Your task to perform on an android device: Open sound settings Image 0: 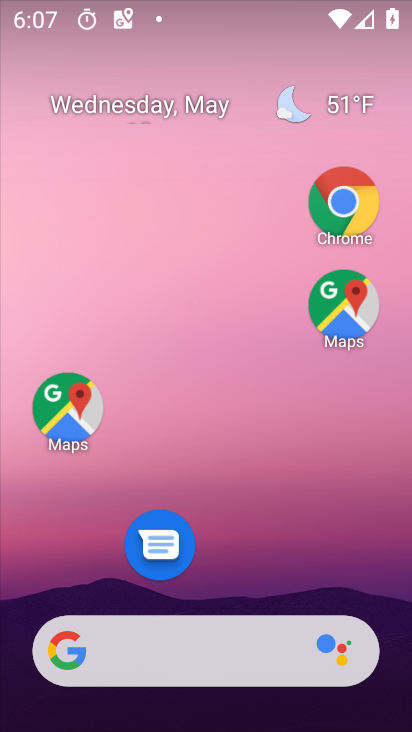
Step 0: drag from (180, 114) to (192, 77)
Your task to perform on an android device: Open sound settings Image 1: 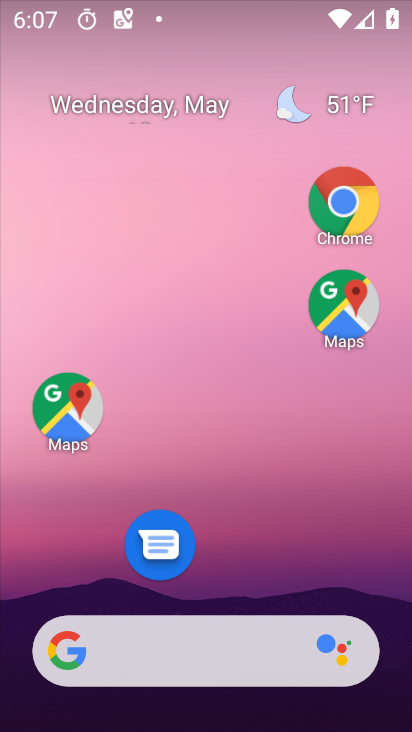
Step 1: drag from (210, 71) to (309, 2)
Your task to perform on an android device: Open sound settings Image 2: 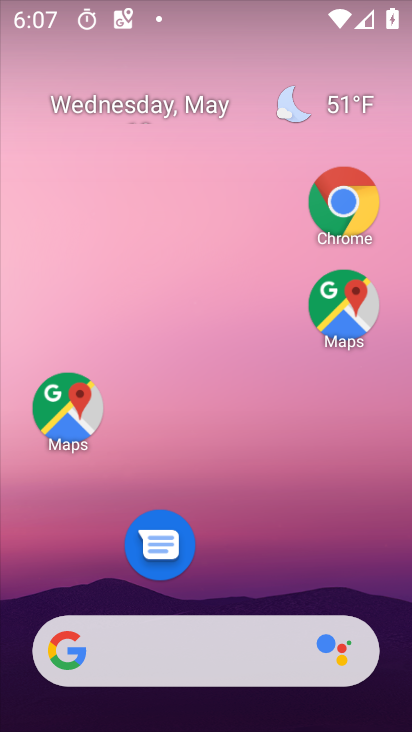
Step 2: drag from (239, 562) to (230, 115)
Your task to perform on an android device: Open sound settings Image 3: 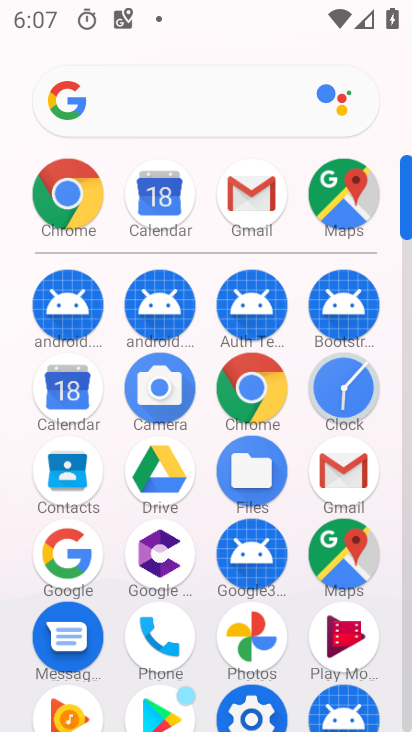
Step 3: click (248, 695)
Your task to perform on an android device: Open sound settings Image 4: 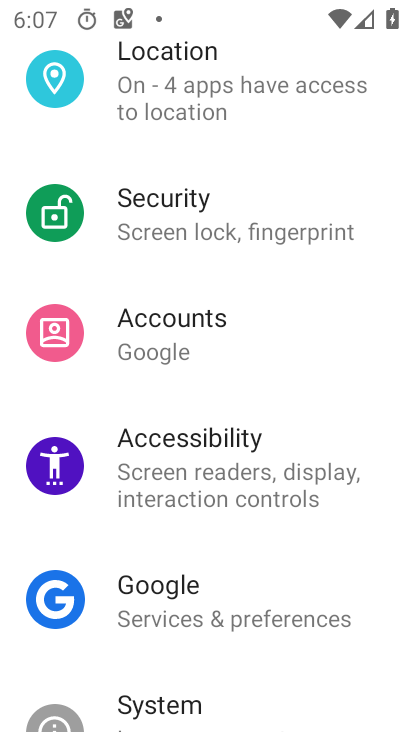
Step 4: drag from (223, 651) to (306, 274)
Your task to perform on an android device: Open sound settings Image 5: 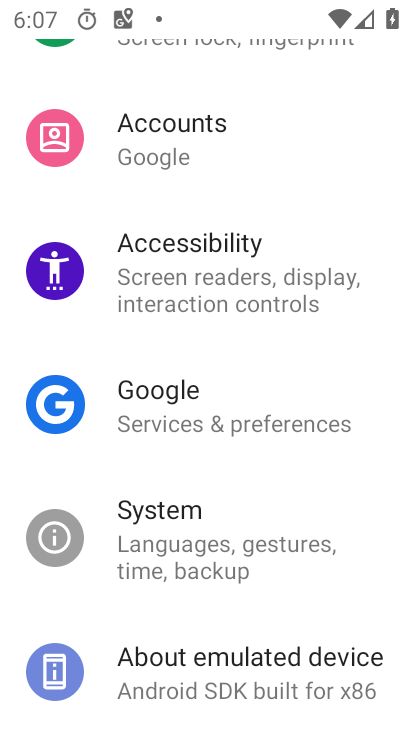
Step 5: click (182, 541)
Your task to perform on an android device: Open sound settings Image 6: 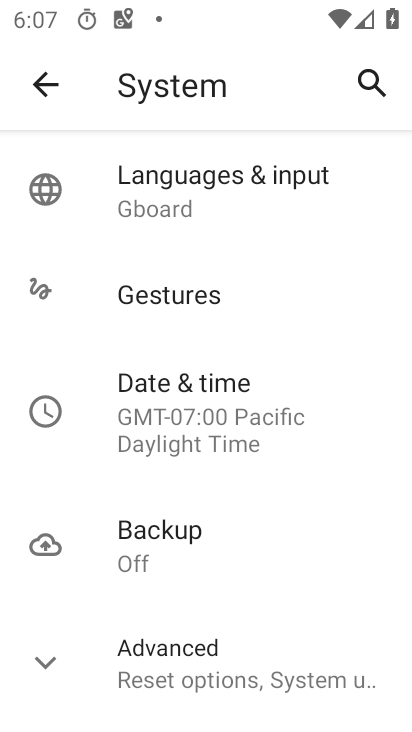
Step 6: click (42, 80)
Your task to perform on an android device: Open sound settings Image 7: 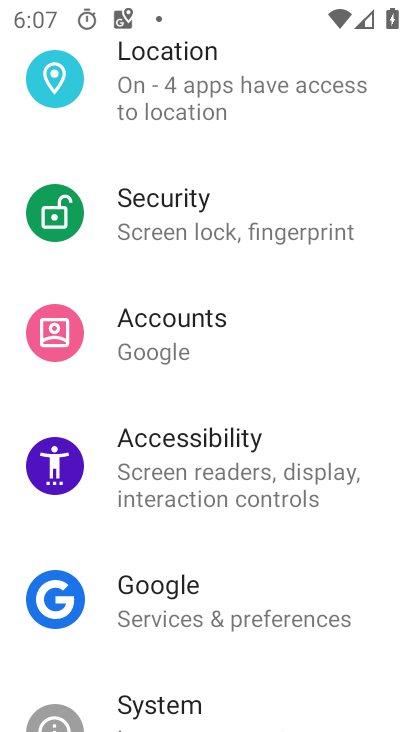
Step 7: drag from (125, 186) to (114, 421)
Your task to perform on an android device: Open sound settings Image 8: 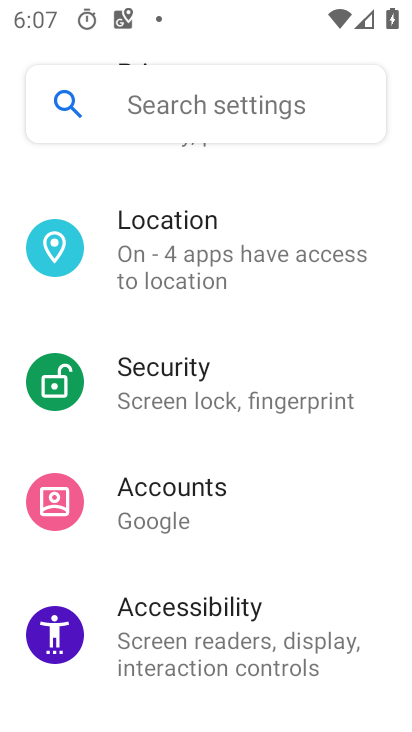
Step 8: drag from (162, 267) to (139, 499)
Your task to perform on an android device: Open sound settings Image 9: 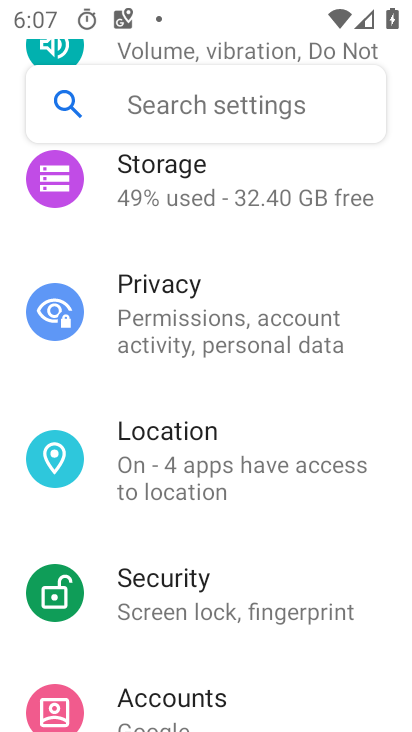
Step 9: drag from (194, 320) to (174, 573)
Your task to perform on an android device: Open sound settings Image 10: 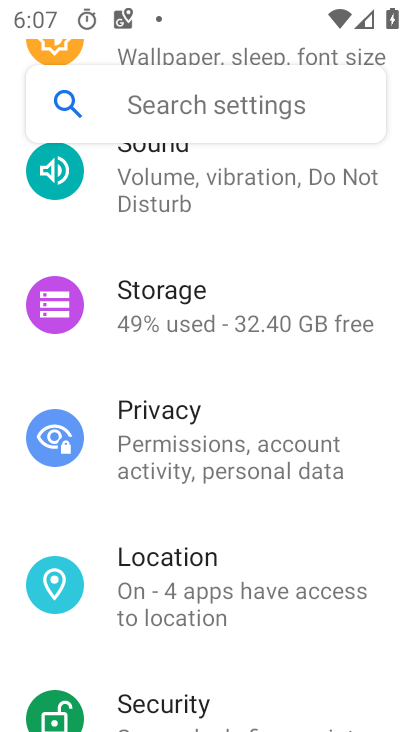
Step 10: drag from (200, 356) to (149, 527)
Your task to perform on an android device: Open sound settings Image 11: 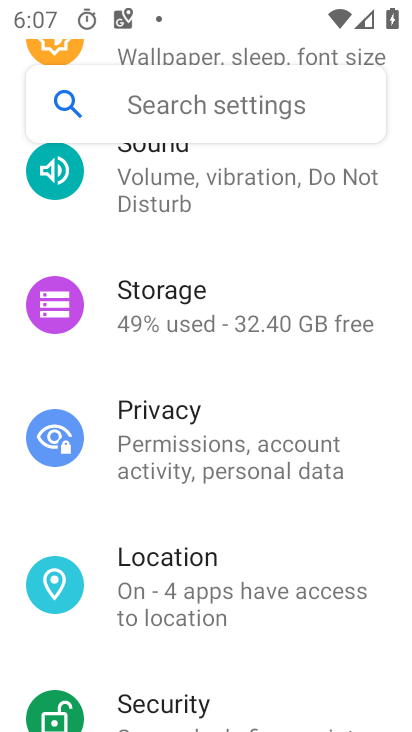
Step 11: click (169, 211)
Your task to perform on an android device: Open sound settings Image 12: 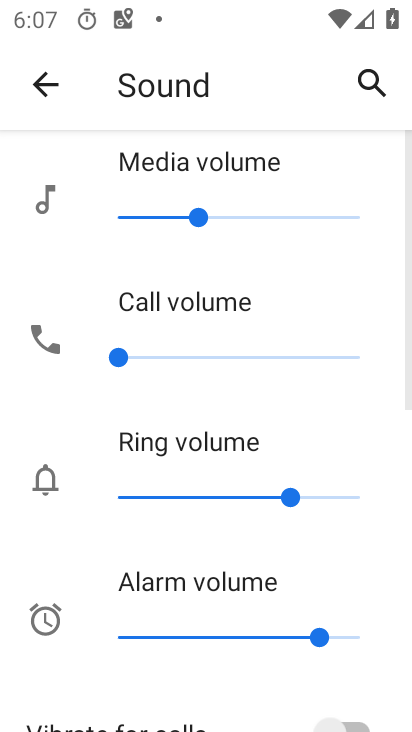
Step 12: task complete